Your task to perform on an android device: delete browsing data in the chrome app Image 0: 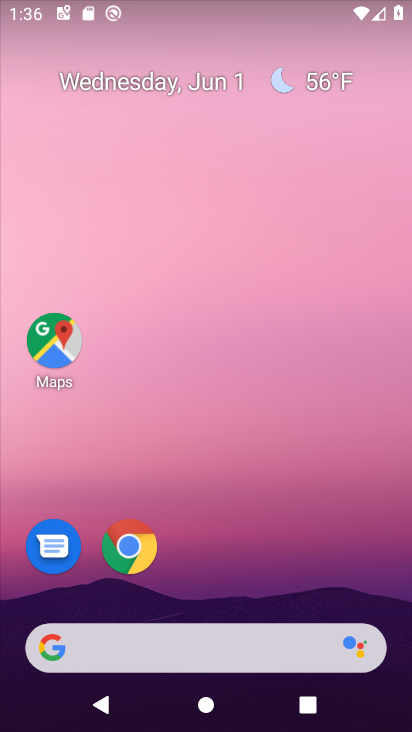
Step 0: drag from (161, 728) to (145, 80)
Your task to perform on an android device: delete browsing data in the chrome app Image 1: 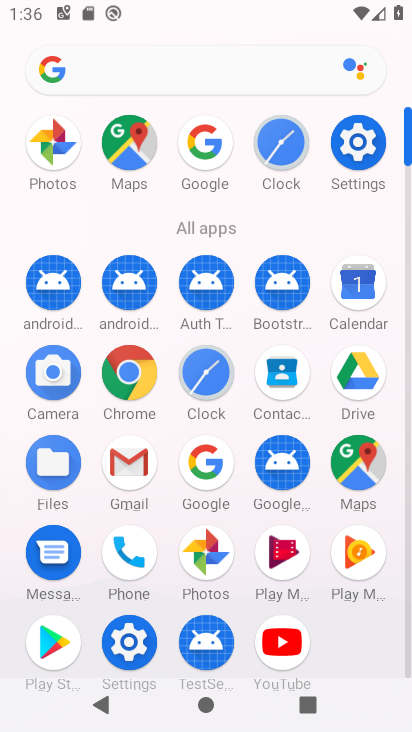
Step 1: click (128, 390)
Your task to perform on an android device: delete browsing data in the chrome app Image 2: 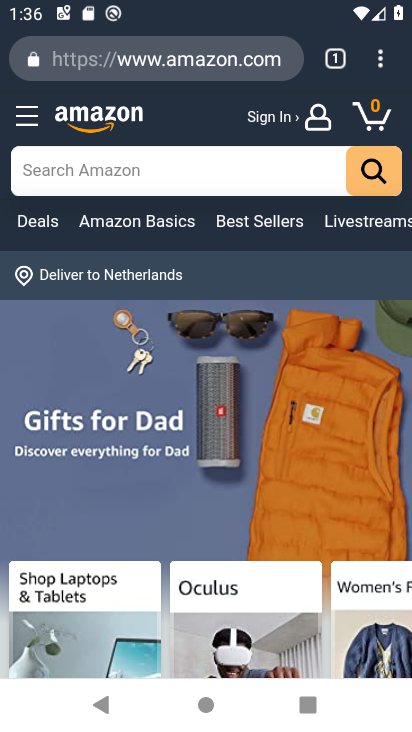
Step 2: click (383, 70)
Your task to perform on an android device: delete browsing data in the chrome app Image 3: 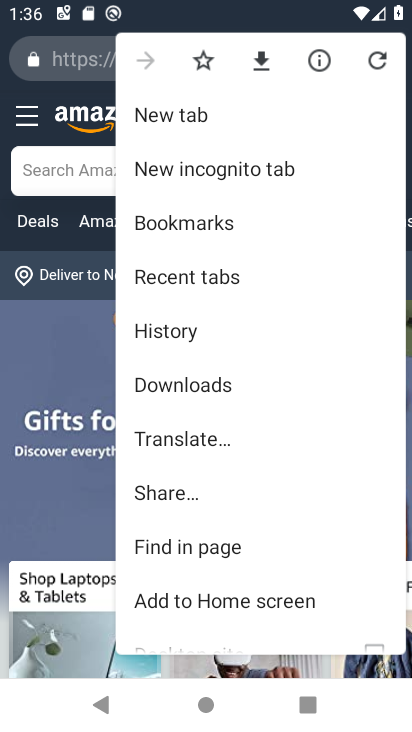
Step 3: drag from (286, 497) to (311, 184)
Your task to perform on an android device: delete browsing data in the chrome app Image 4: 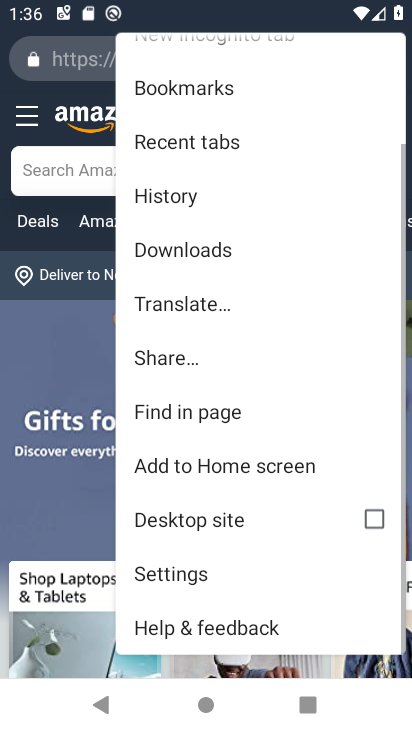
Step 4: click (192, 586)
Your task to perform on an android device: delete browsing data in the chrome app Image 5: 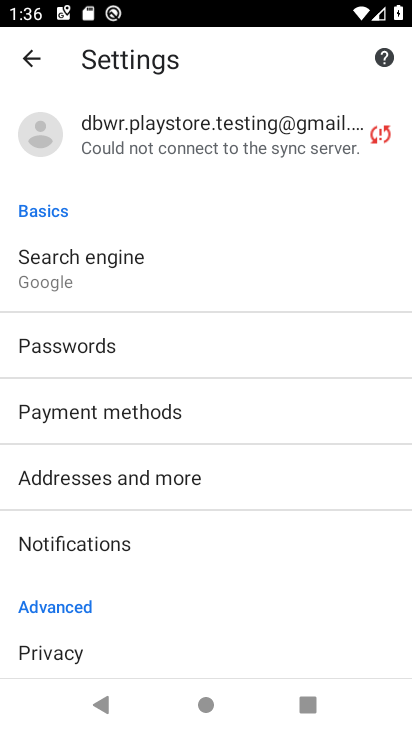
Step 5: drag from (192, 619) to (225, 185)
Your task to perform on an android device: delete browsing data in the chrome app Image 6: 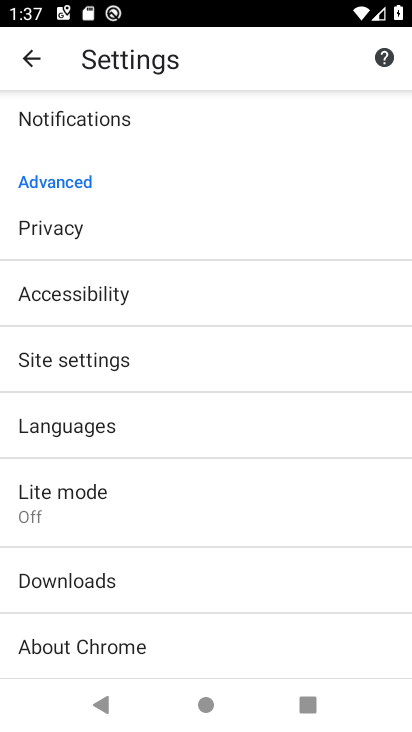
Step 6: click (101, 228)
Your task to perform on an android device: delete browsing data in the chrome app Image 7: 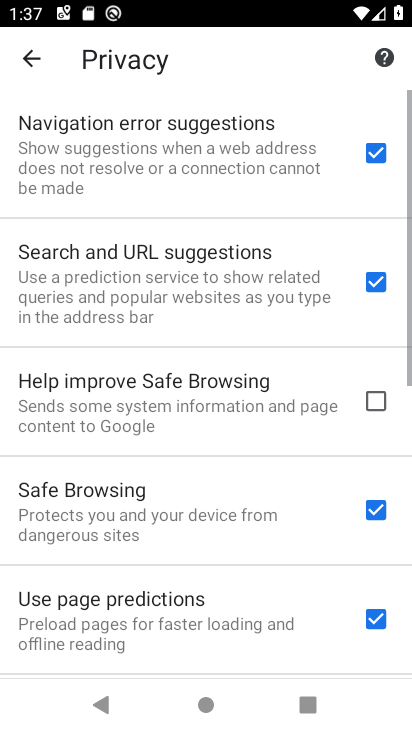
Step 7: drag from (266, 617) to (329, 139)
Your task to perform on an android device: delete browsing data in the chrome app Image 8: 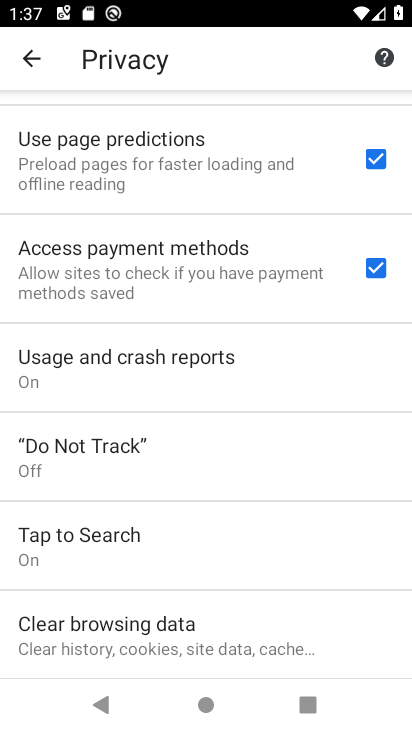
Step 8: click (246, 658)
Your task to perform on an android device: delete browsing data in the chrome app Image 9: 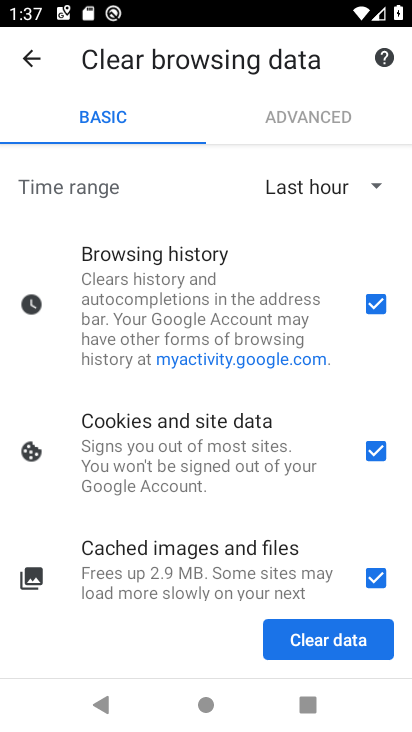
Step 9: click (372, 444)
Your task to perform on an android device: delete browsing data in the chrome app Image 10: 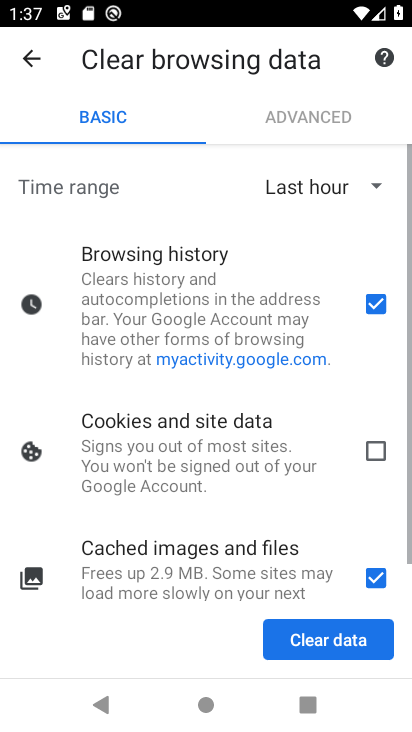
Step 10: click (379, 578)
Your task to perform on an android device: delete browsing data in the chrome app Image 11: 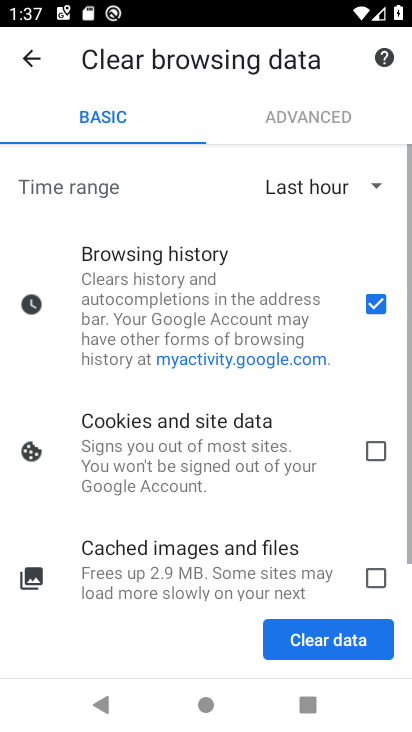
Step 11: click (338, 187)
Your task to perform on an android device: delete browsing data in the chrome app Image 12: 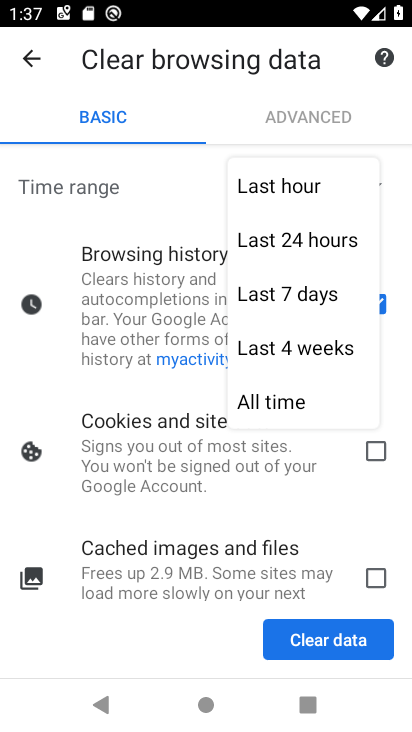
Step 12: click (289, 394)
Your task to perform on an android device: delete browsing data in the chrome app Image 13: 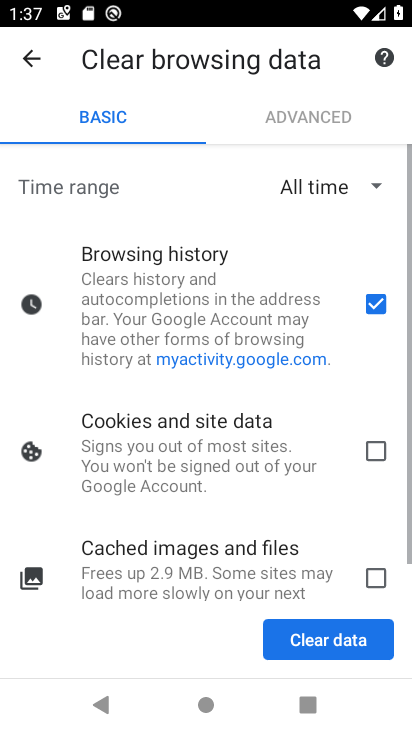
Step 13: click (314, 641)
Your task to perform on an android device: delete browsing data in the chrome app Image 14: 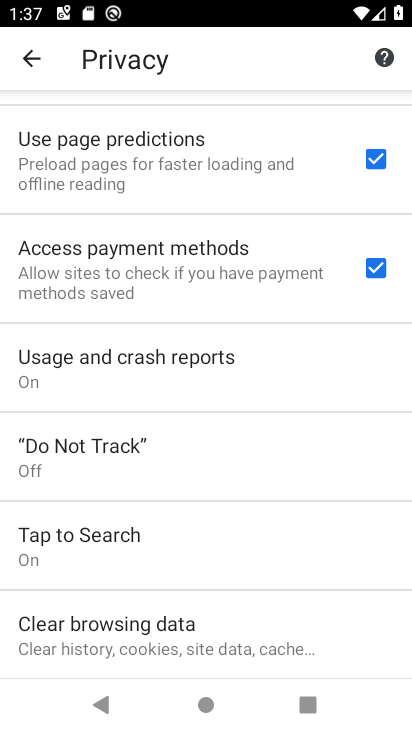
Step 14: task complete